Your task to perform on an android device: Show me popular games on the Play Store Image 0: 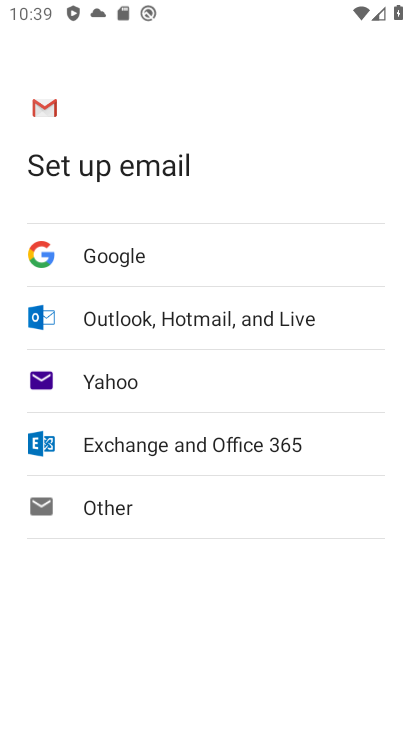
Step 0: press home button
Your task to perform on an android device: Show me popular games on the Play Store Image 1: 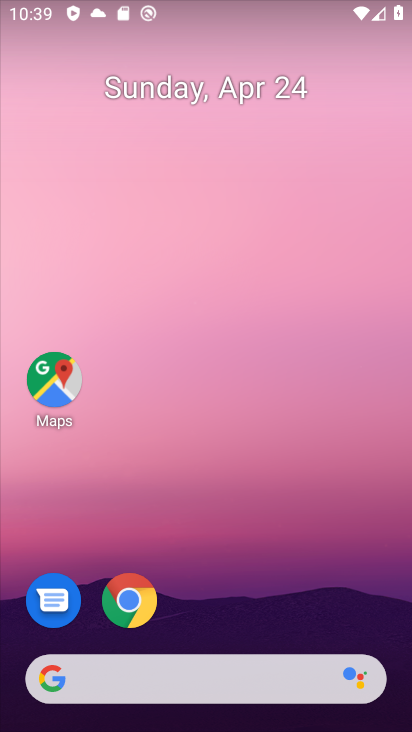
Step 1: drag from (220, 579) to (157, 106)
Your task to perform on an android device: Show me popular games on the Play Store Image 2: 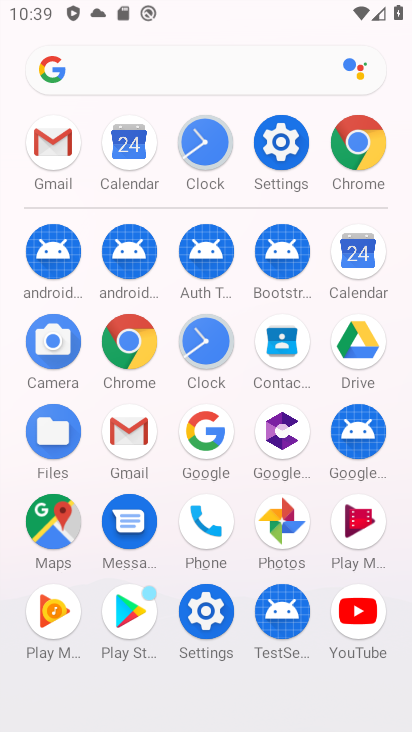
Step 2: click (129, 626)
Your task to perform on an android device: Show me popular games on the Play Store Image 3: 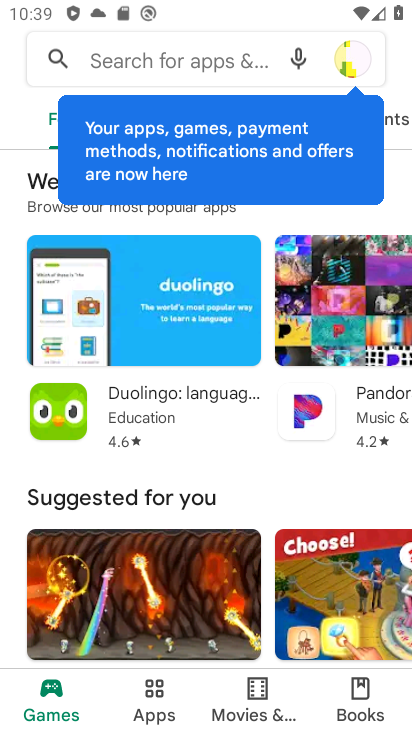
Step 3: click (149, 697)
Your task to perform on an android device: Show me popular games on the Play Store Image 4: 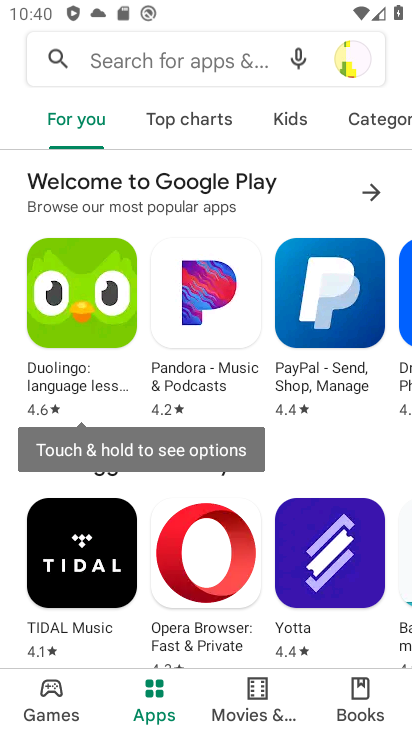
Step 4: task complete